Your task to perform on an android device: Open the Play Movies app and select the watchlist tab. Image 0: 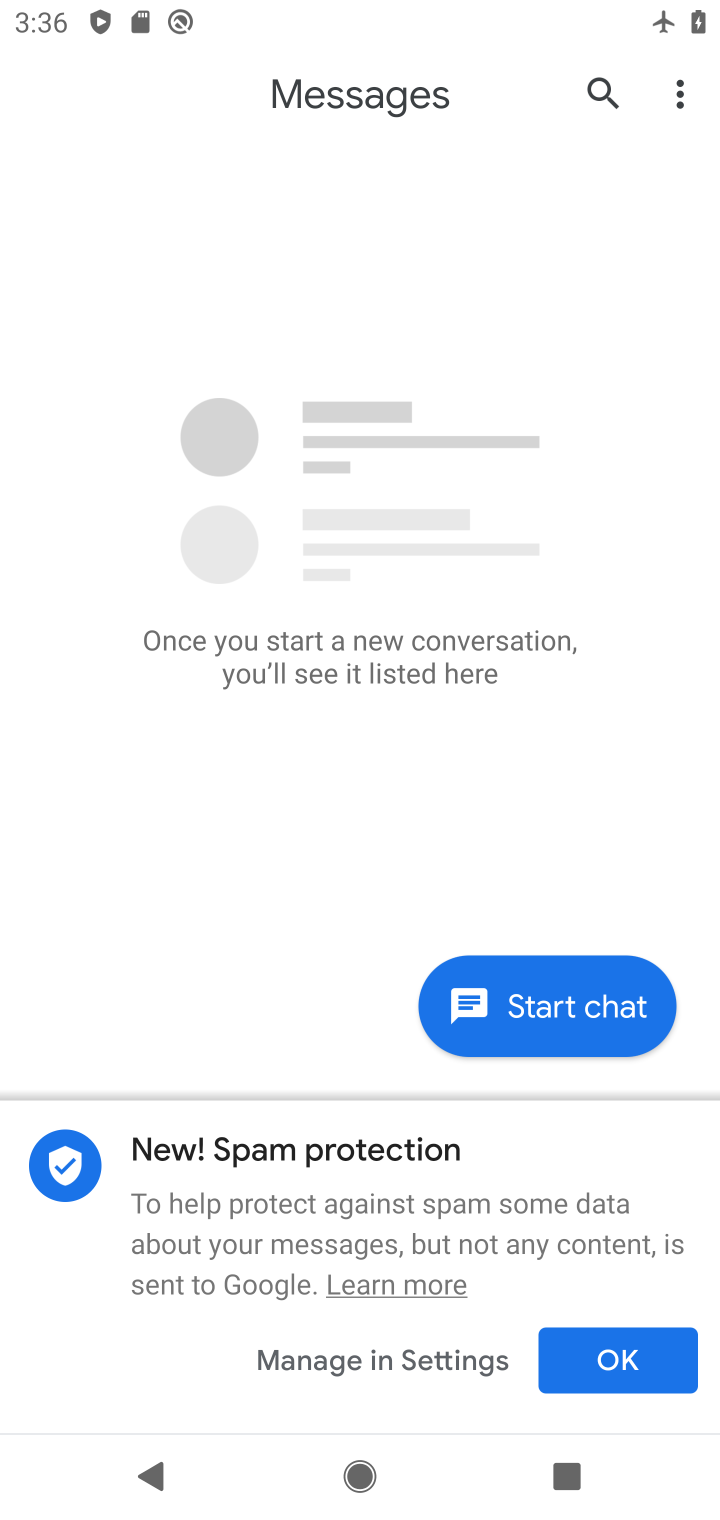
Step 0: press home button
Your task to perform on an android device: Open the Play Movies app and select the watchlist tab. Image 1: 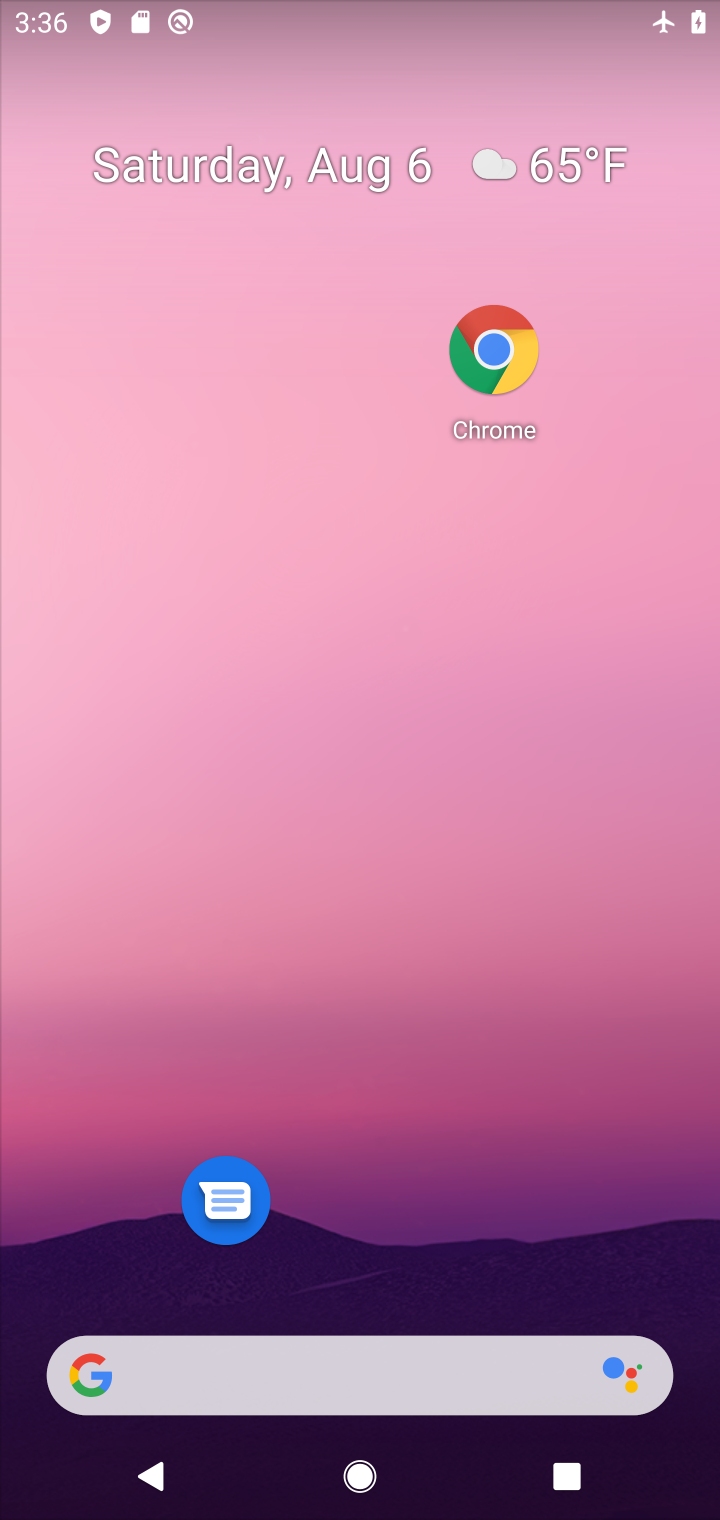
Step 1: drag from (355, 1123) to (447, 468)
Your task to perform on an android device: Open the Play Movies app and select the watchlist tab. Image 2: 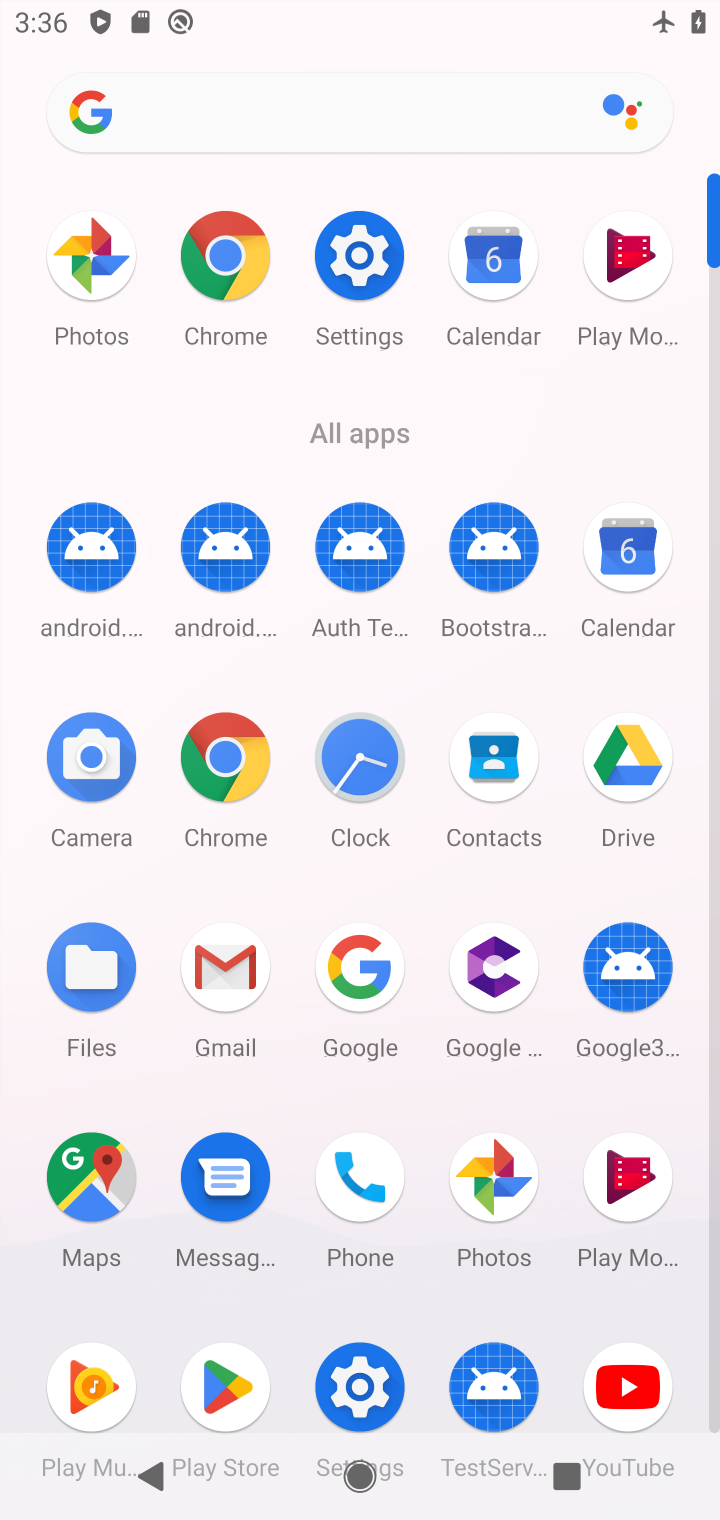
Step 2: click (610, 1192)
Your task to perform on an android device: Open the Play Movies app and select the watchlist tab. Image 3: 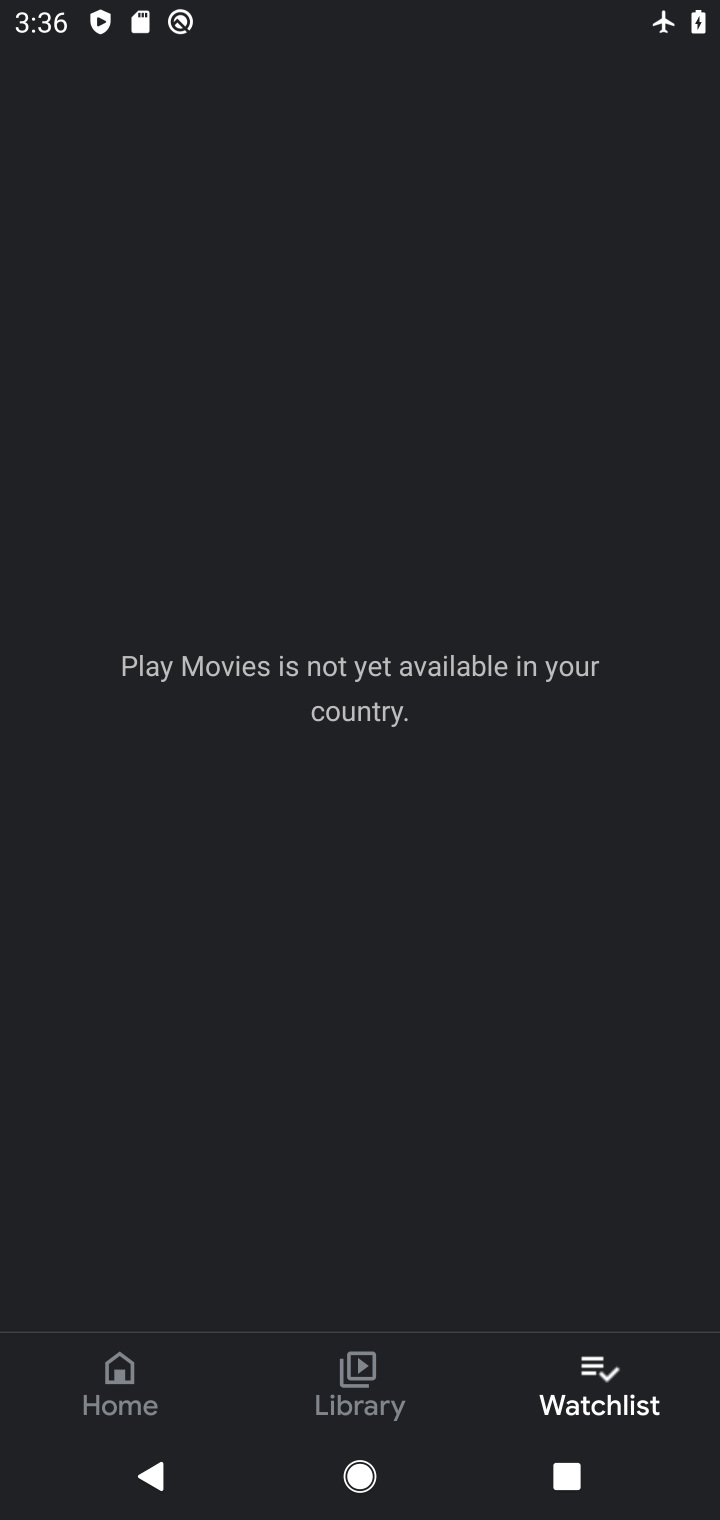
Step 3: task complete